Your task to perform on an android device: install app "Calculator" Image 0: 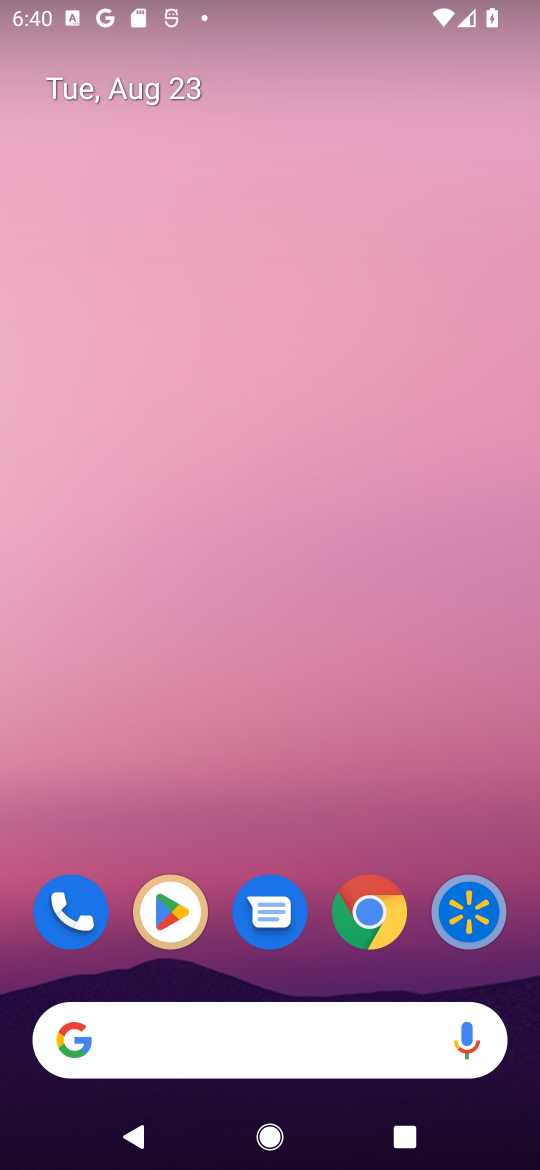
Step 0: click (168, 912)
Your task to perform on an android device: install app "Calculator" Image 1: 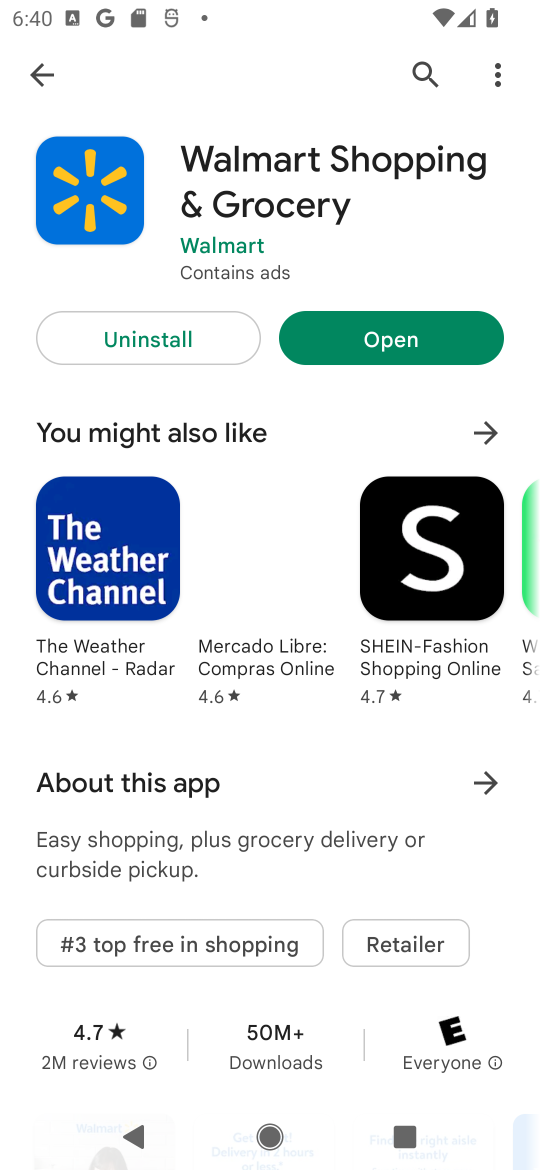
Step 1: click (46, 63)
Your task to perform on an android device: install app "Calculator" Image 2: 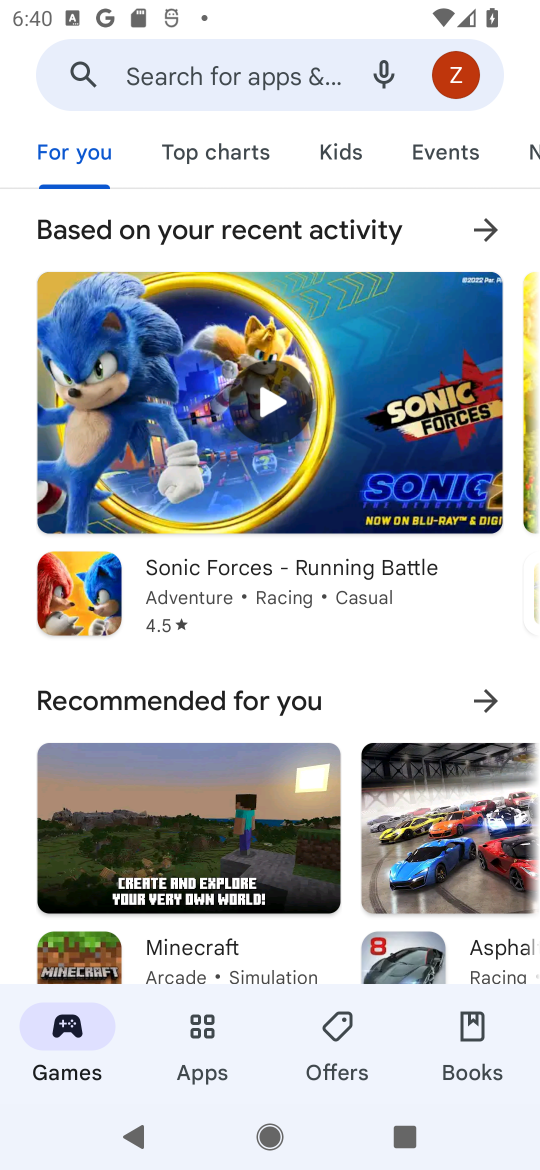
Step 2: click (146, 70)
Your task to perform on an android device: install app "Calculator" Image 3: 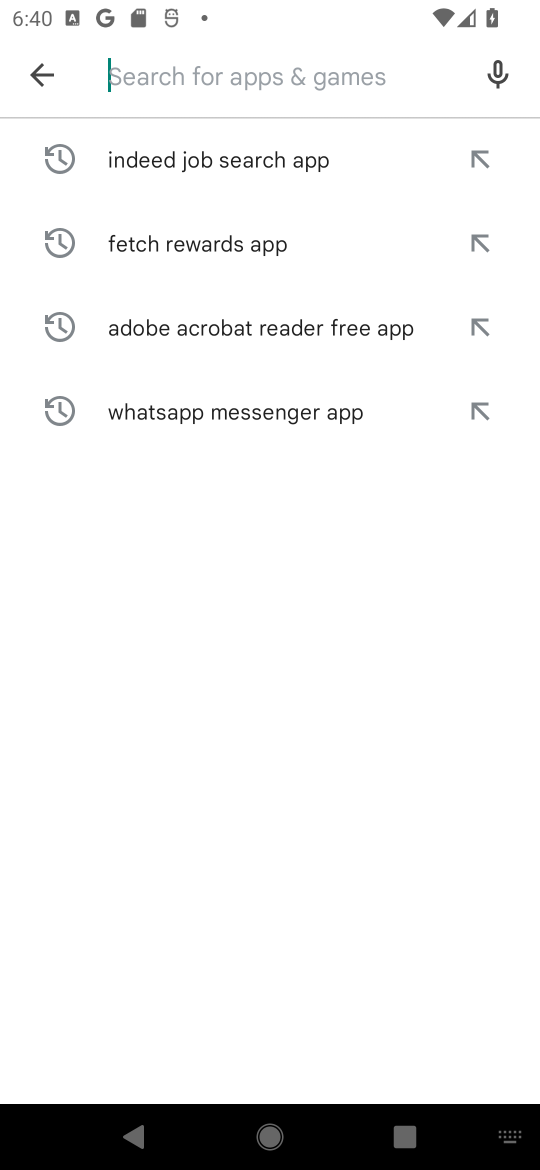
Step 3: type "calculator "
Your task to perform on an android device: install app "Calculator" Image 4: 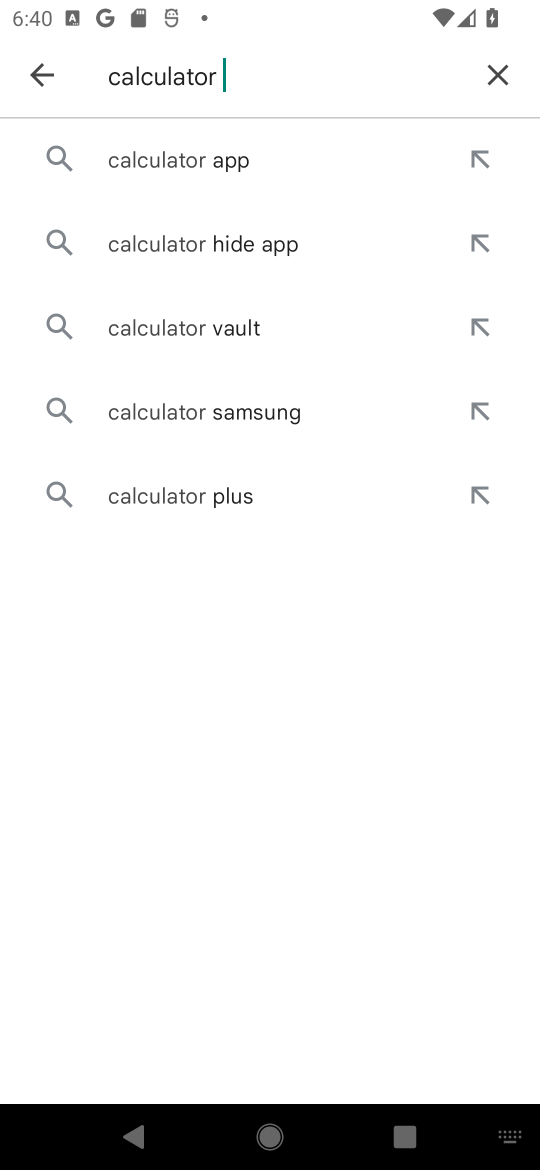
Step 4: click (204, 156)
Your task to perform on an android device: install app "Calculator" Image 5: 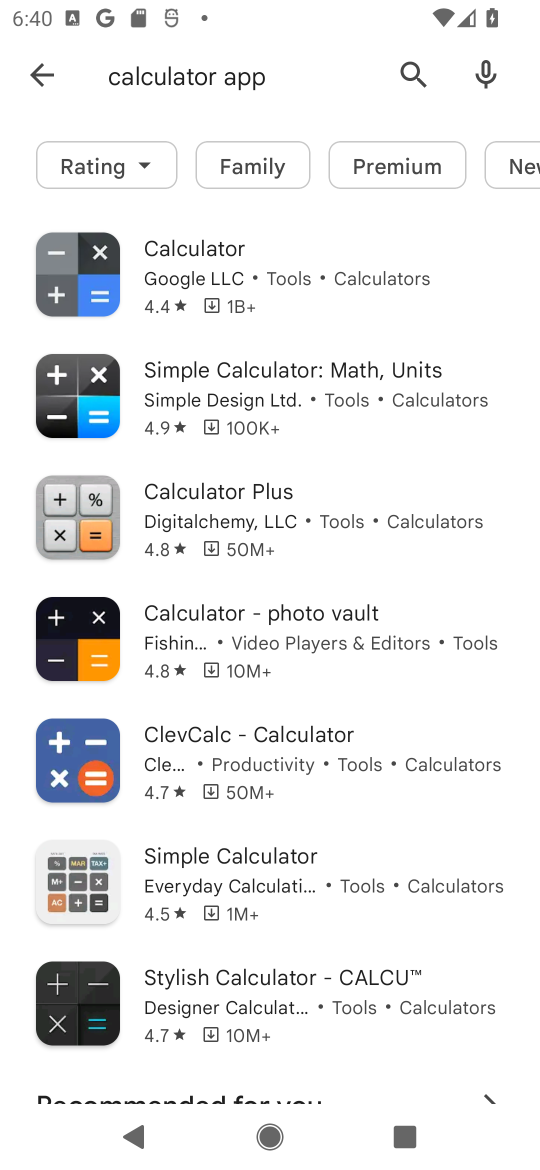
Step 5: click (214, 241)
Your task to perform on an android device: install app "Calculator" Image 6: 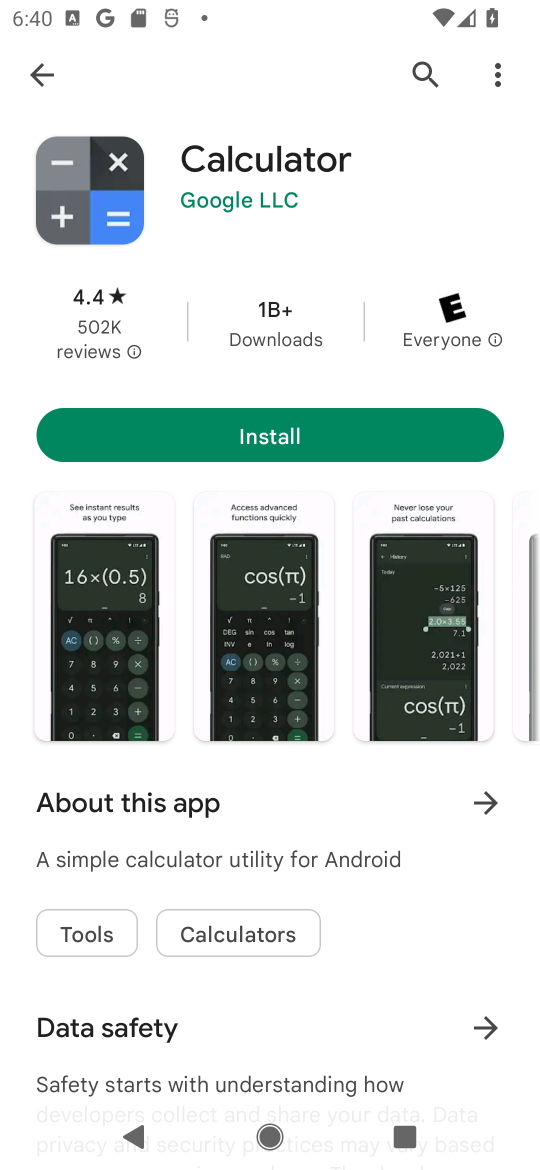
Step 6: click (283, 444)
Your task to perform on an android device: install app "Calculator" Image 7: 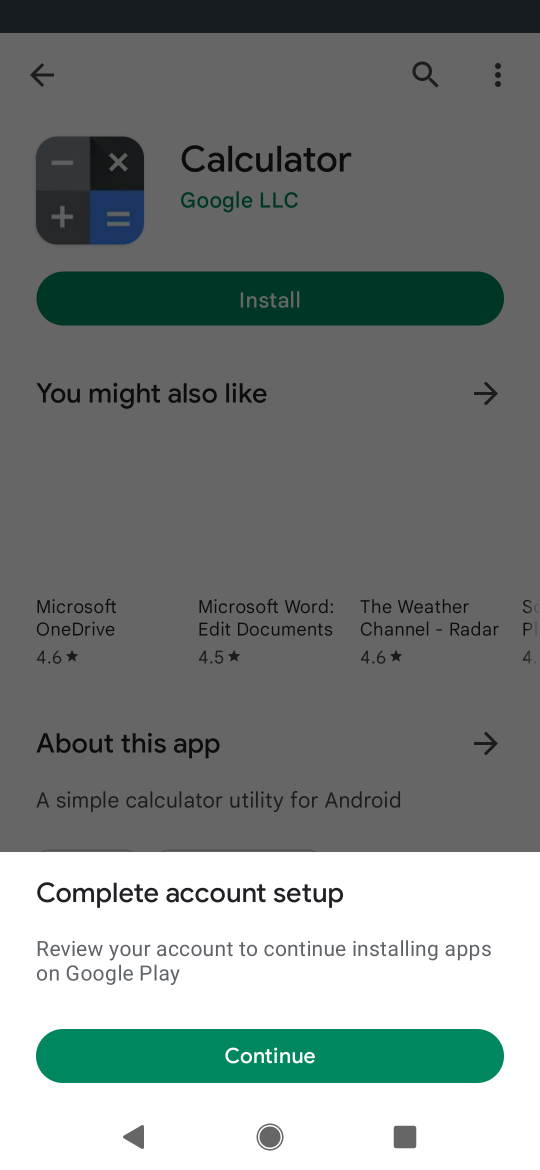
Step 7: click (171, 451)
Your task to perform on an android device: install app "Calculator" Image 8: 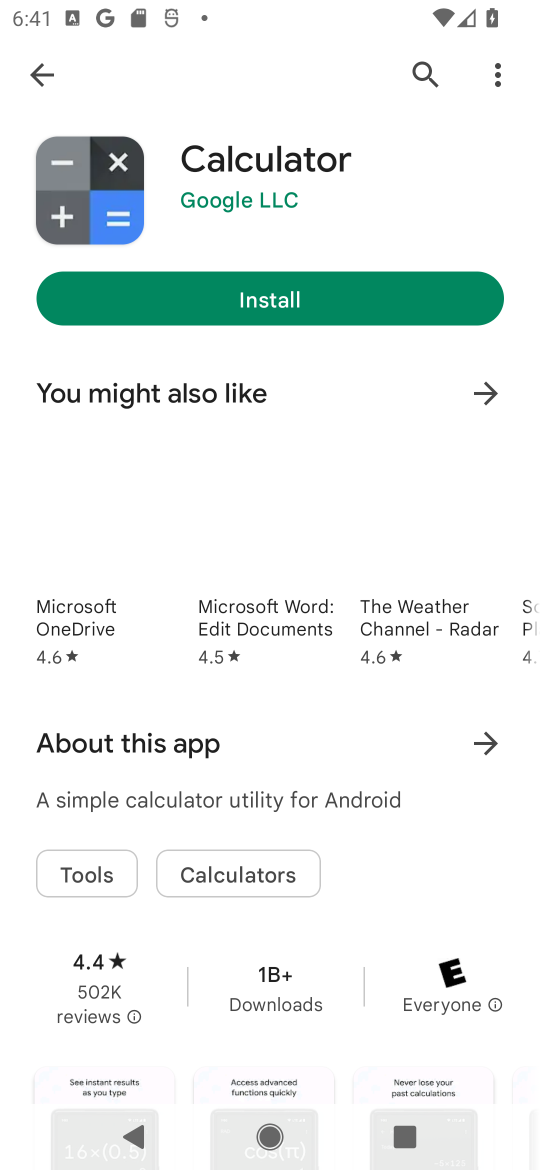
Step 8: click (280, 297)
Your task to perform on an android device: install app "Calculator" Image 9: 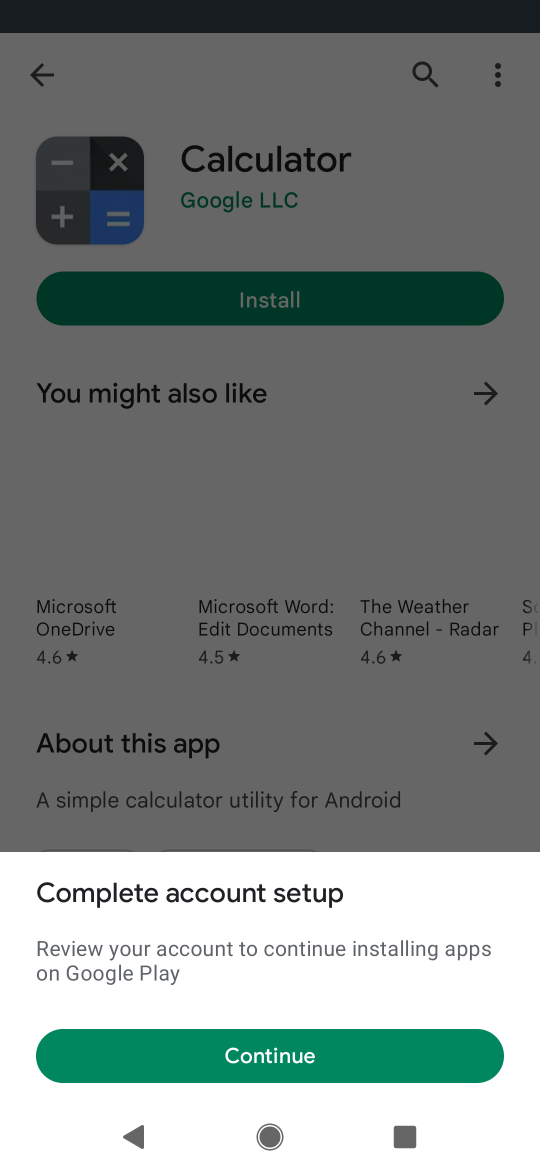
Step 9: click (226, 1064)
Your task to perform on an android device: install app "Calculator" Image 10: 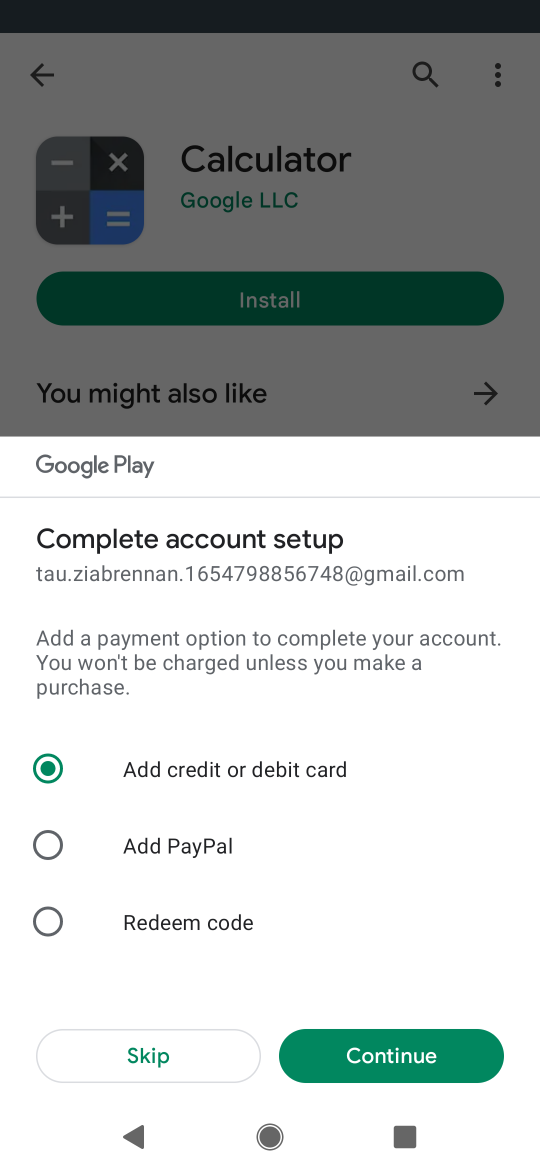
Step 10: task complete